Your task to perform on an android device: open app "Booking.com: Hotels and more" (install if not already installed) and go to login screen Image 0: 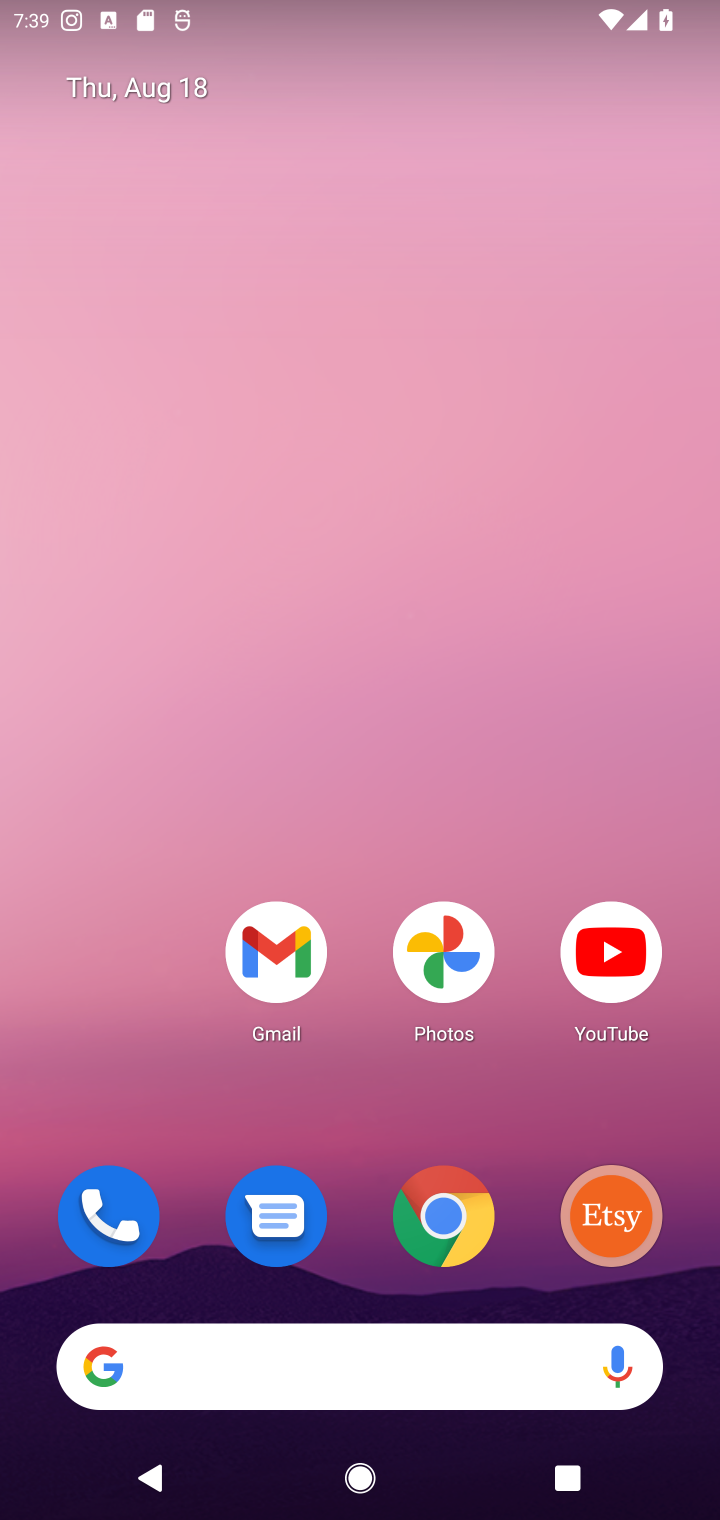
Step 0: drag from (362, 1024) to (403, 276)
Your task to perform on an android device: open app "Booking.com: Hotels and more" (install if not already installed) and go to login screen Image 1: 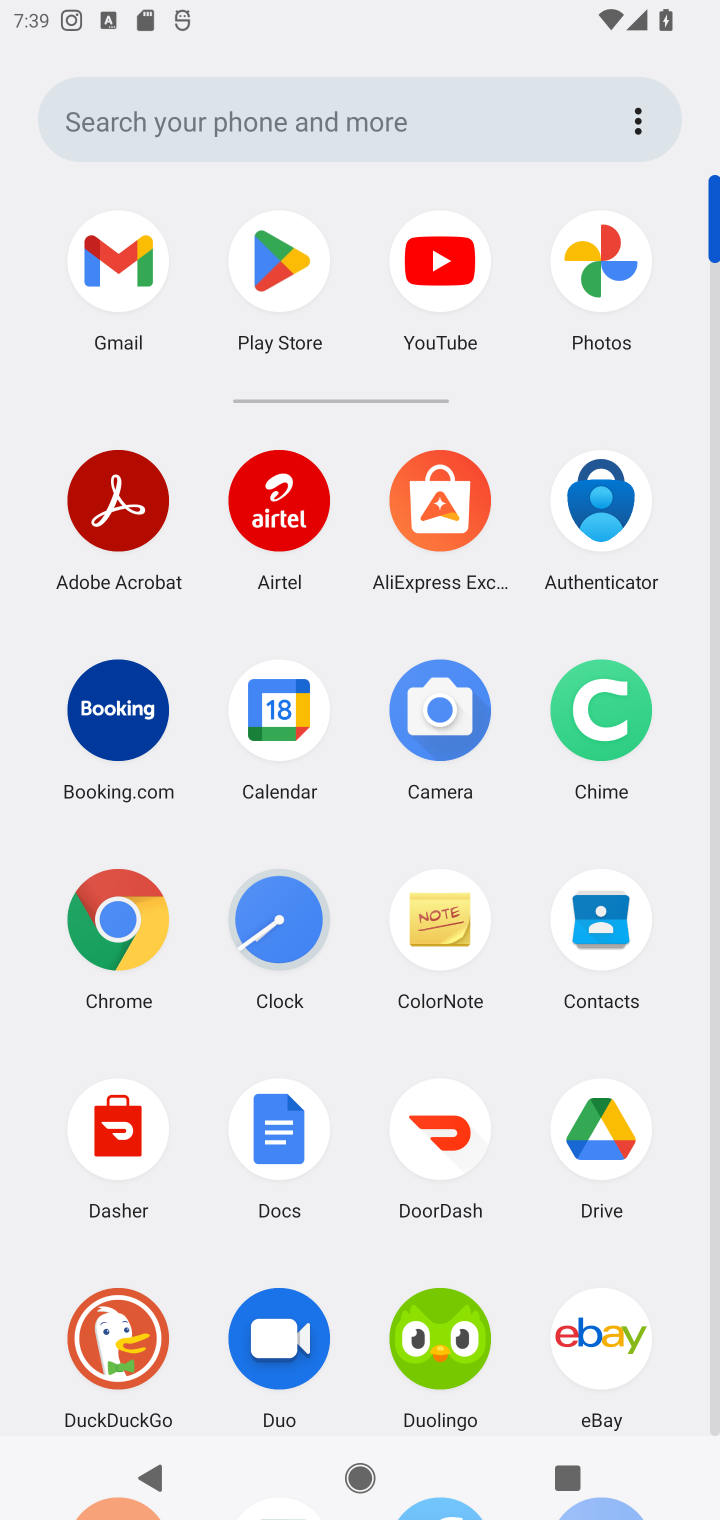
Step 1: click (248, 241)
Your task to perform on an android device: open app "Booking.com: Hotels and more" (install if not already installed) and go to login screen Image 2: 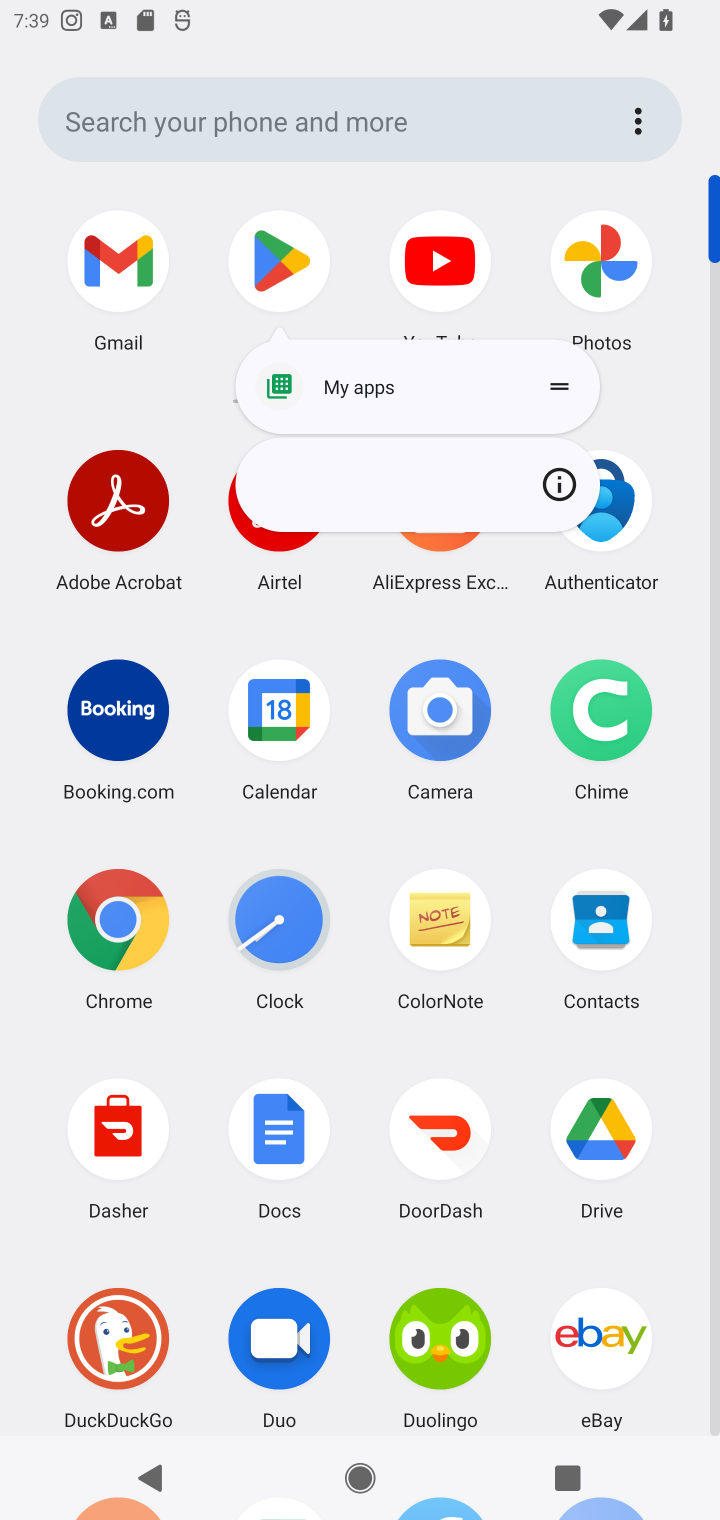
Step 2: click (273, 249)
Your task to perform on an android device: open app "Booking.com: Hotels and more" (install if not already installed) and go to login screen Image 3: 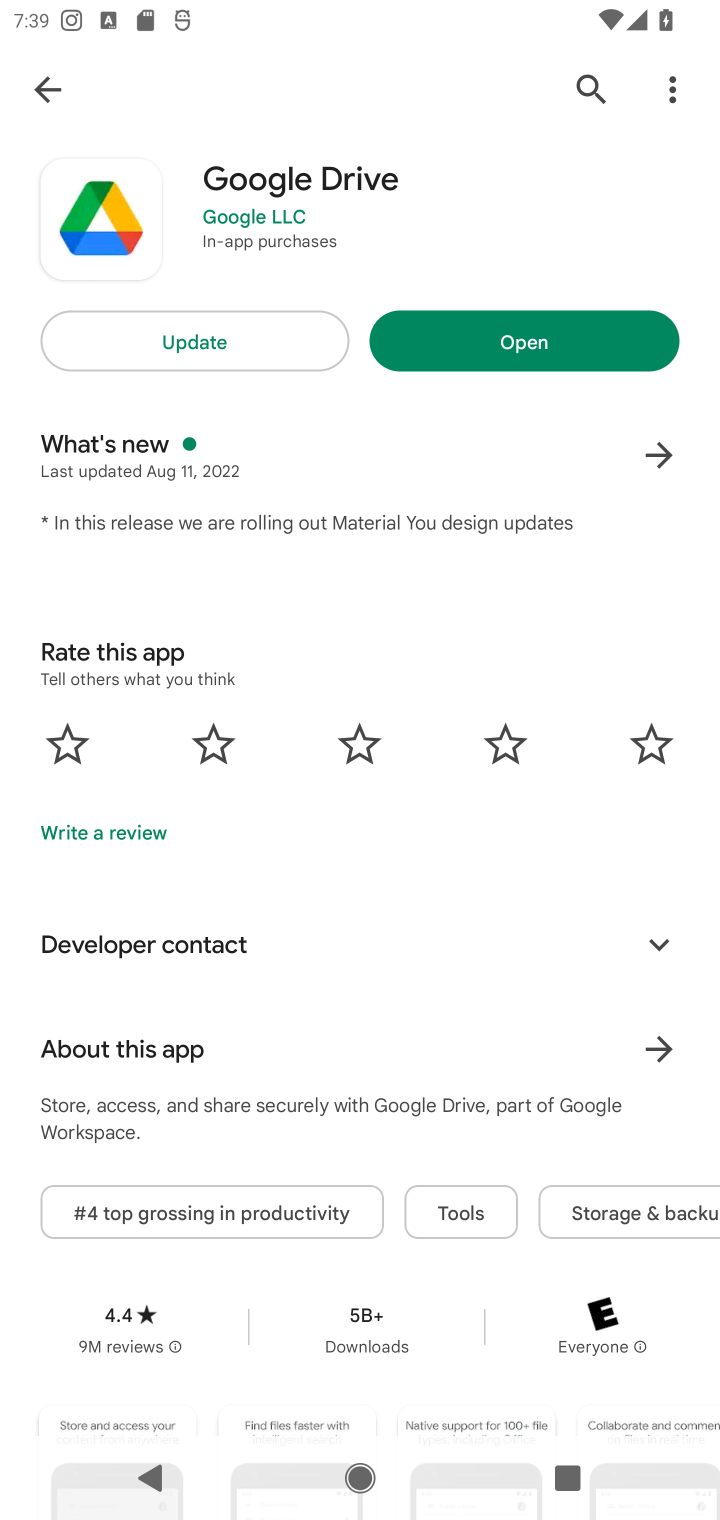
Step 3: click (594, 84)
Your task to perform on an android device: open app "Booking.com: Hotels and more" (install if not already installed) and go to login screen Image 4: 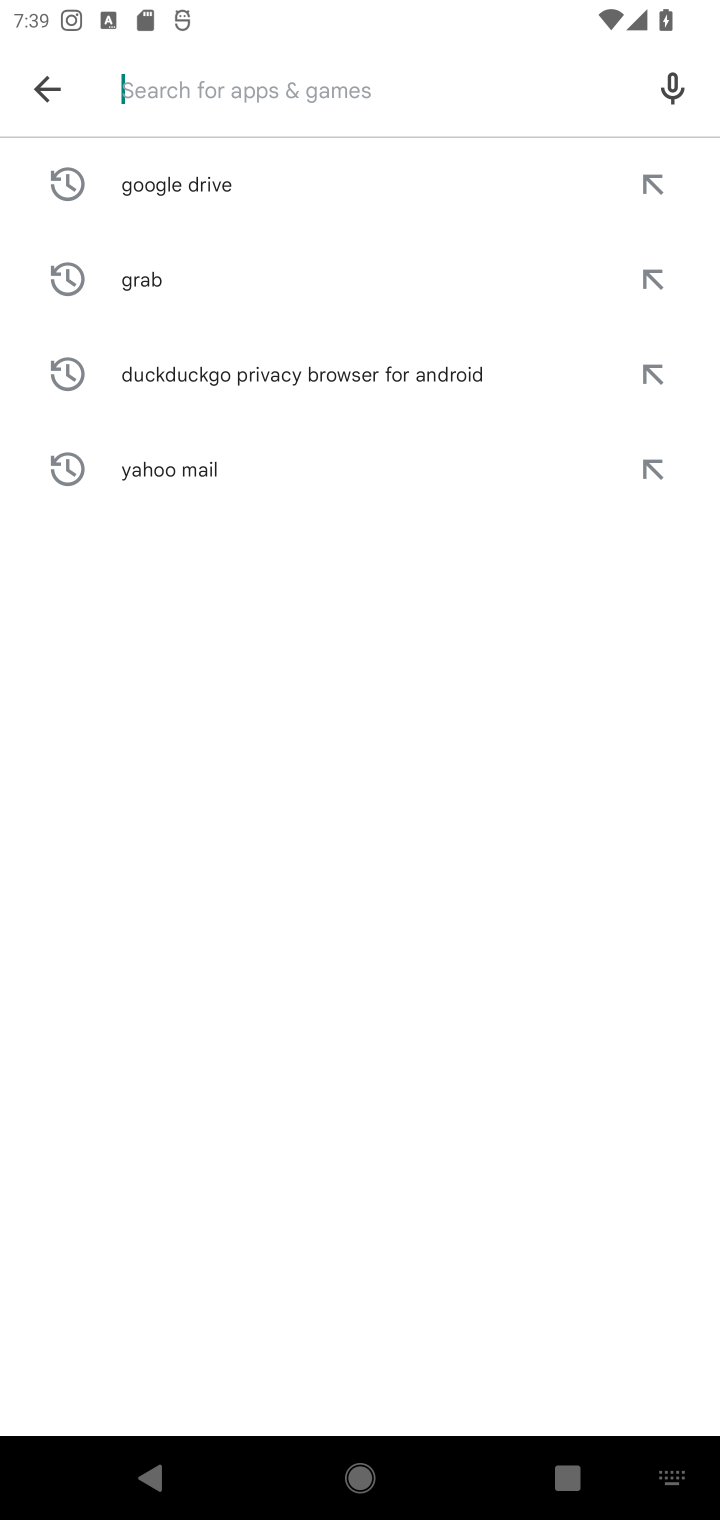
Step 4: type "Booking.com: Hotels and more"
Your task to perform on an android device: open app "Booking.com: Hotels and more" (install if not already installed) and go to login screen Image 5: 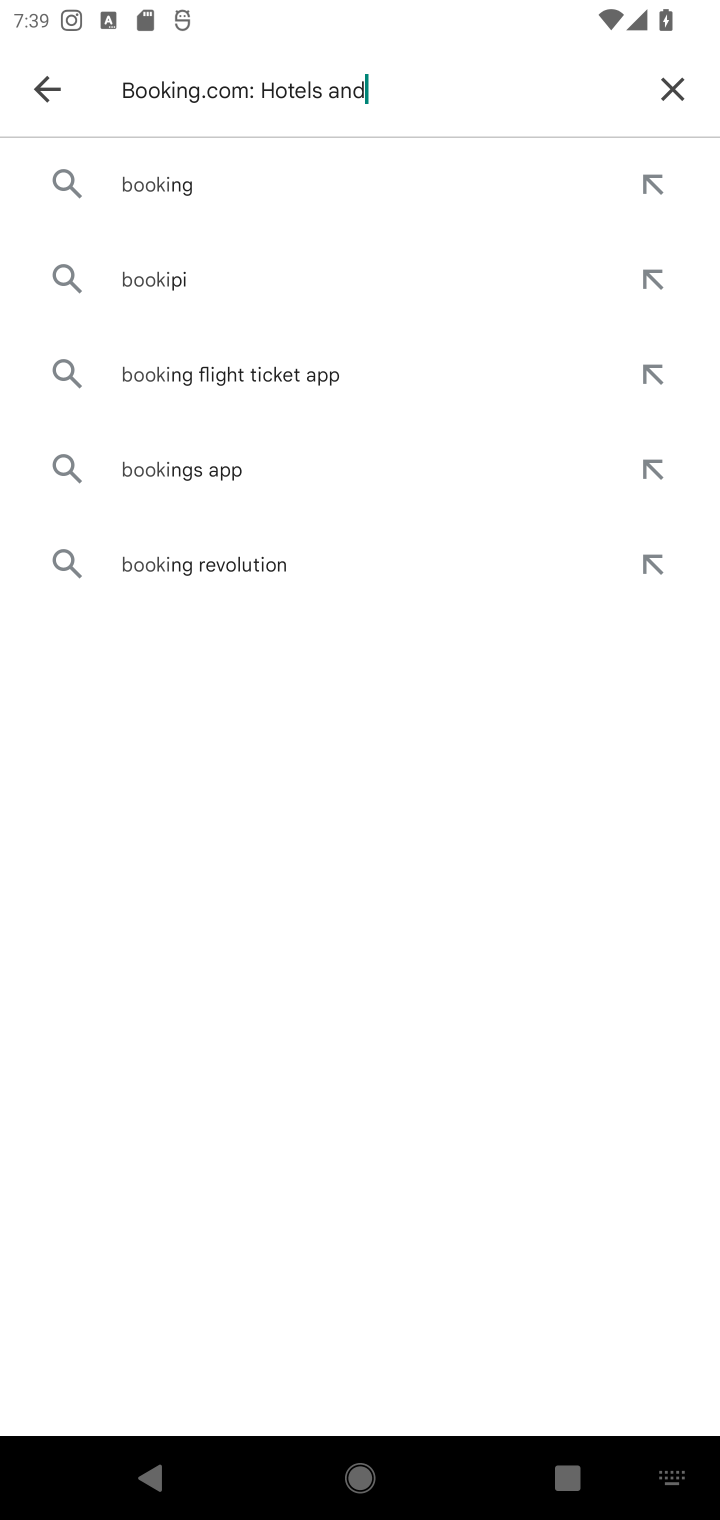
Step 5: type ""
Your task to perform on an android device: open app "Booking.com: Hotels and more" (install if not already installed) and go to login screen Image 6: 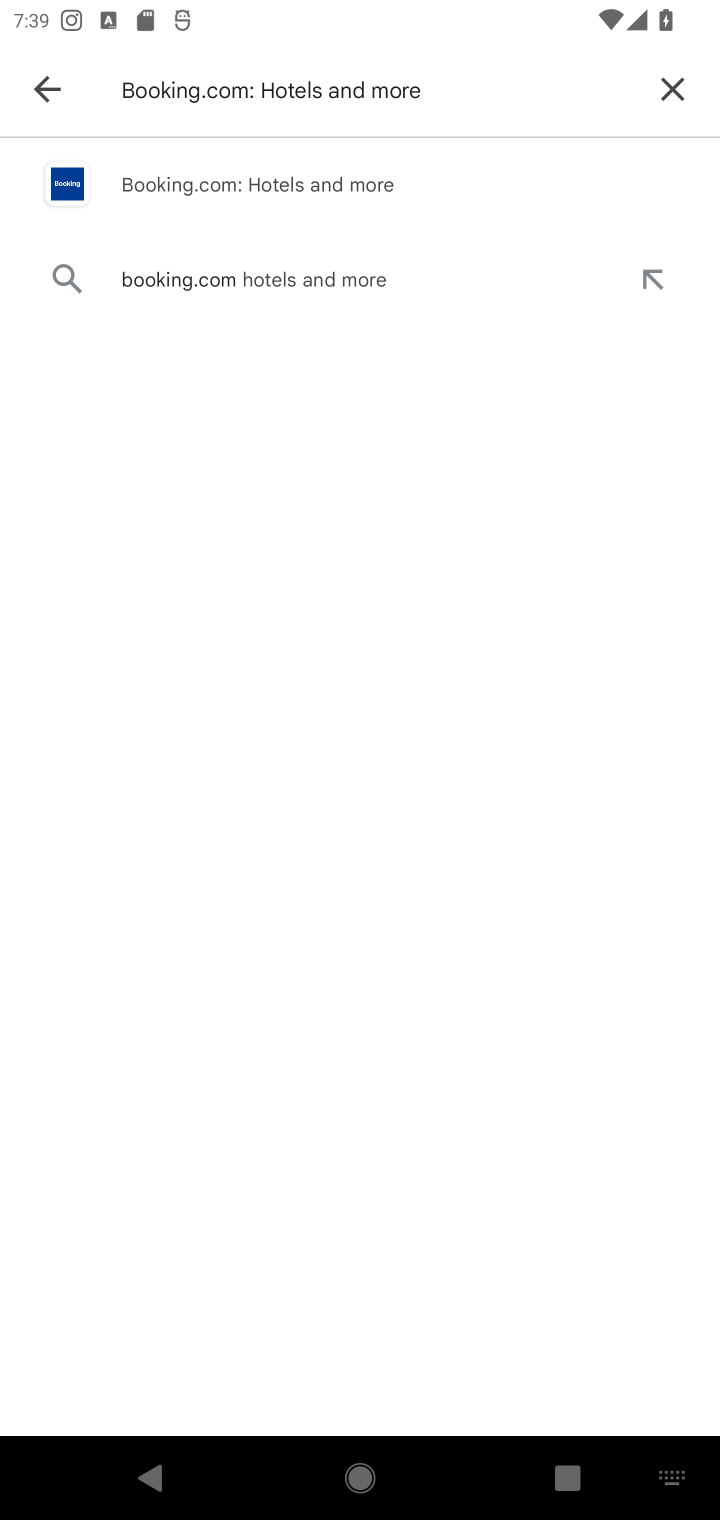
Step 6: click (315, 183)
Your task to perform on an android device: open app "Booking.com: Hotels and more" (install if not already installed) and go to login screen Image 7: 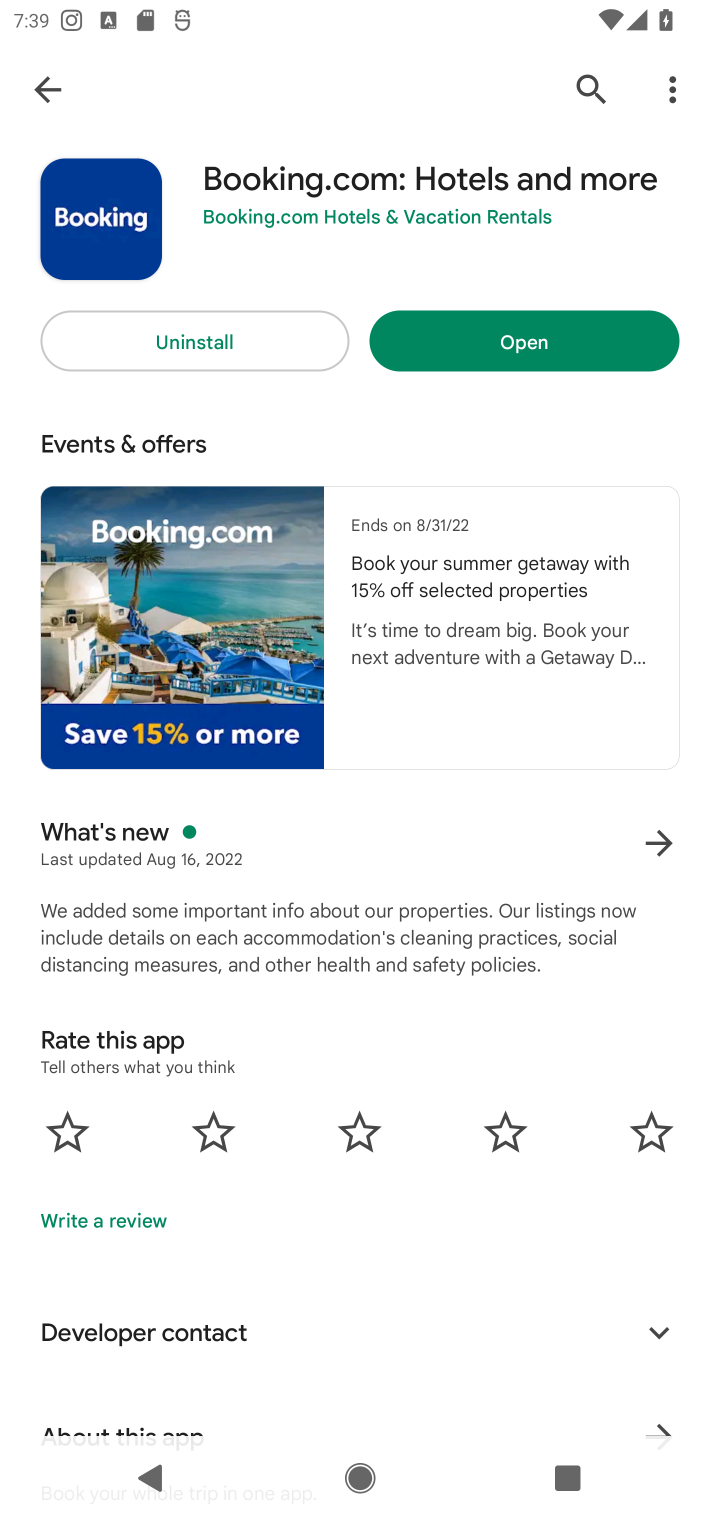
Step 7: click (501, 352)
Your task to perform on an android device: open app "Booking.com: Hotels and more" (install if not already installed) and go to login screen Image 8: 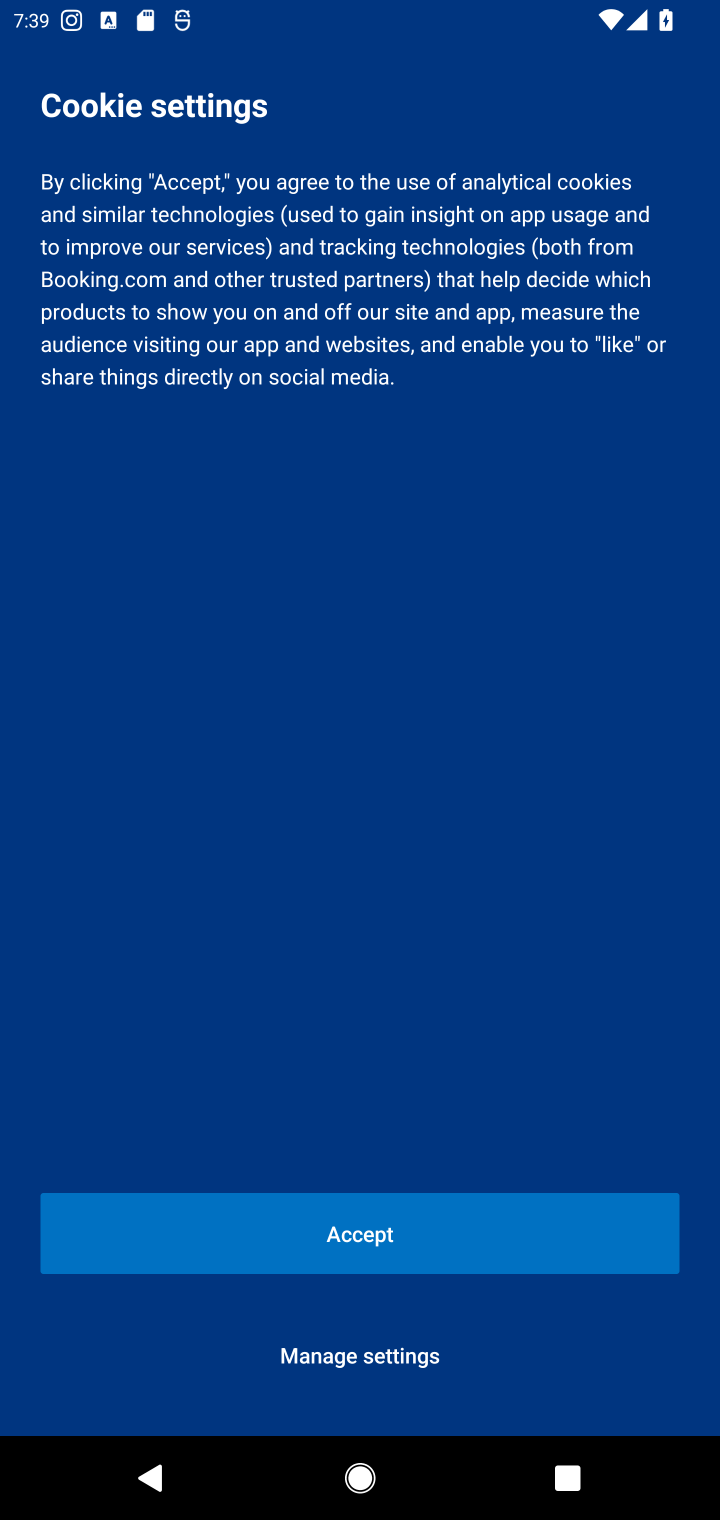
Step 8: task complete